Your task to perform on an android device: Go to notification settings Image 0: 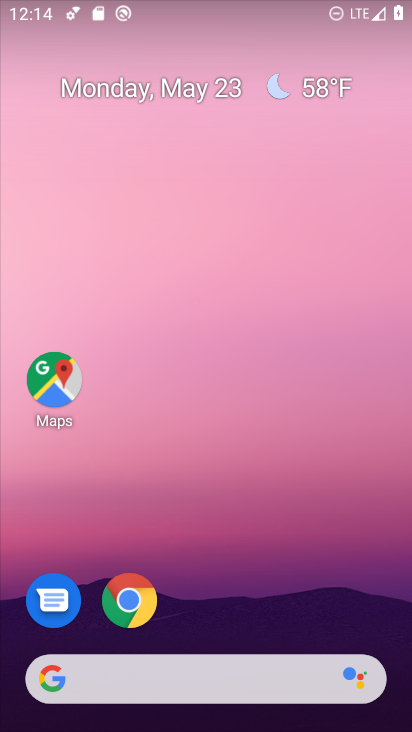
Step 0: drag from (286, 488) to (257, 116)
Your task to perform on an android device: Go to notification settings Image 1: 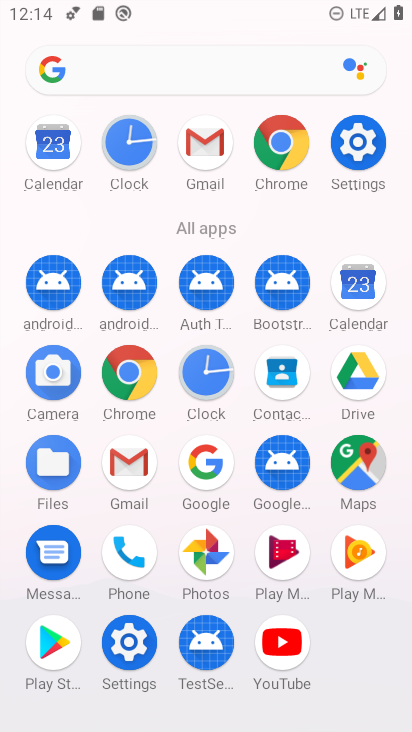
Step 1: click (359, 147)
Your task to perform on an android device: Go to notification settings Image 2: 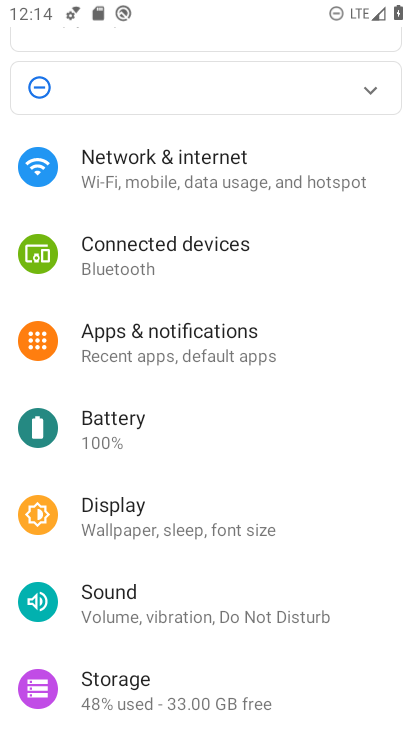
Step 2: click (228, 327)
Your task to perform on an android device: Go to notification settings Image 3: 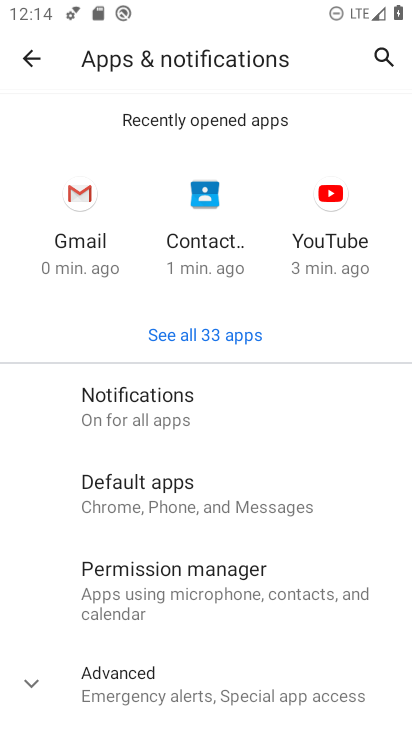
Step 3: click (168, 411)
Your task to perform on an android device: Go to notification settings Image 4: 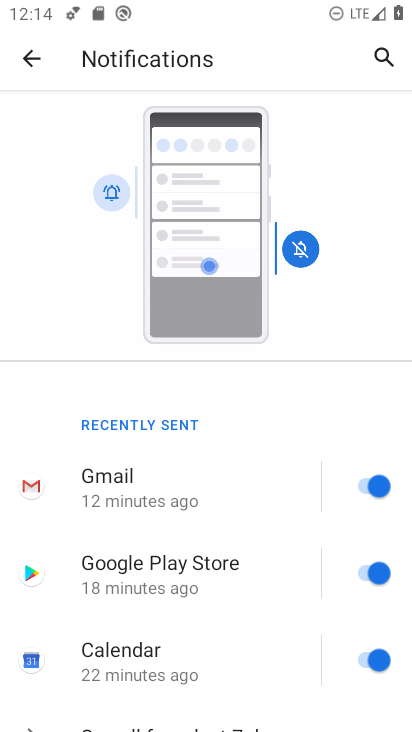
Step 4: task complete